Your task to perform on an android device: Show me recent news Image 0: 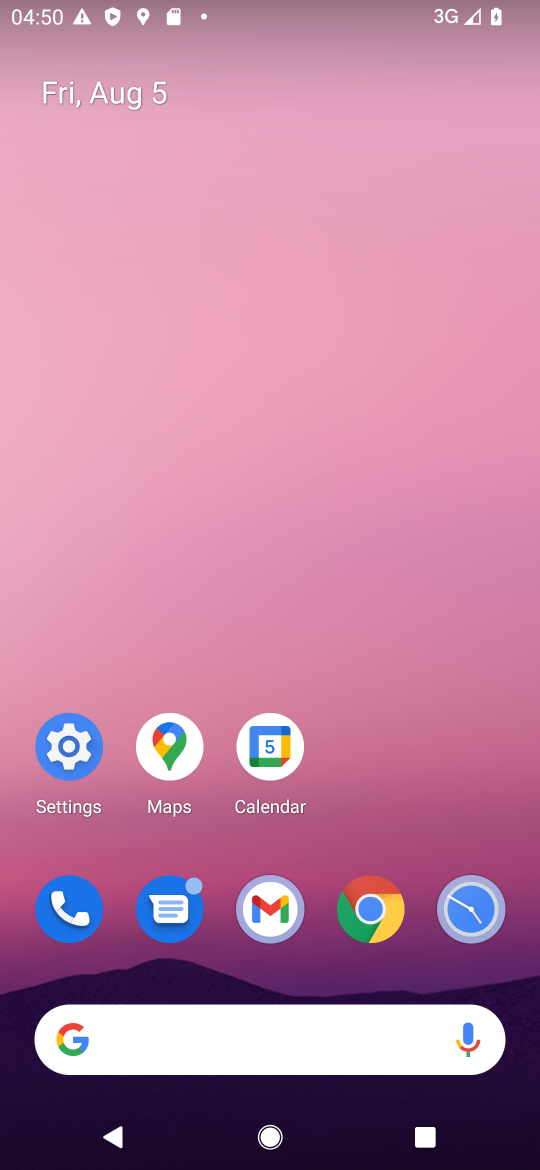
Step 0: click (297, 1028)
Your task to perform on an android device: Show me recent news Image 1: 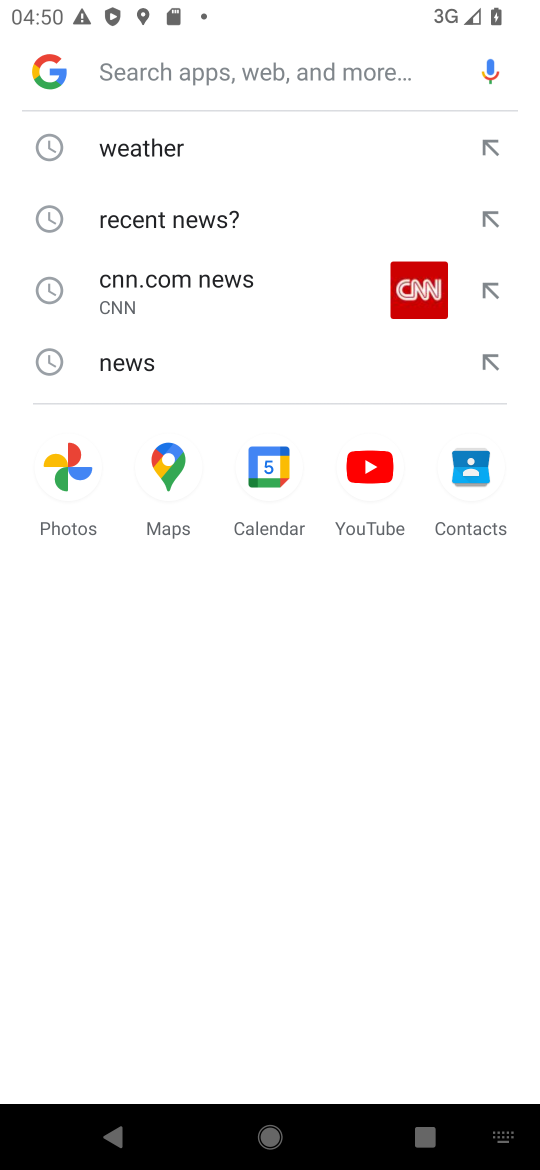
Step 1: click (162, 218)
Your task to perform on an android device: Show me recent news Image 2: 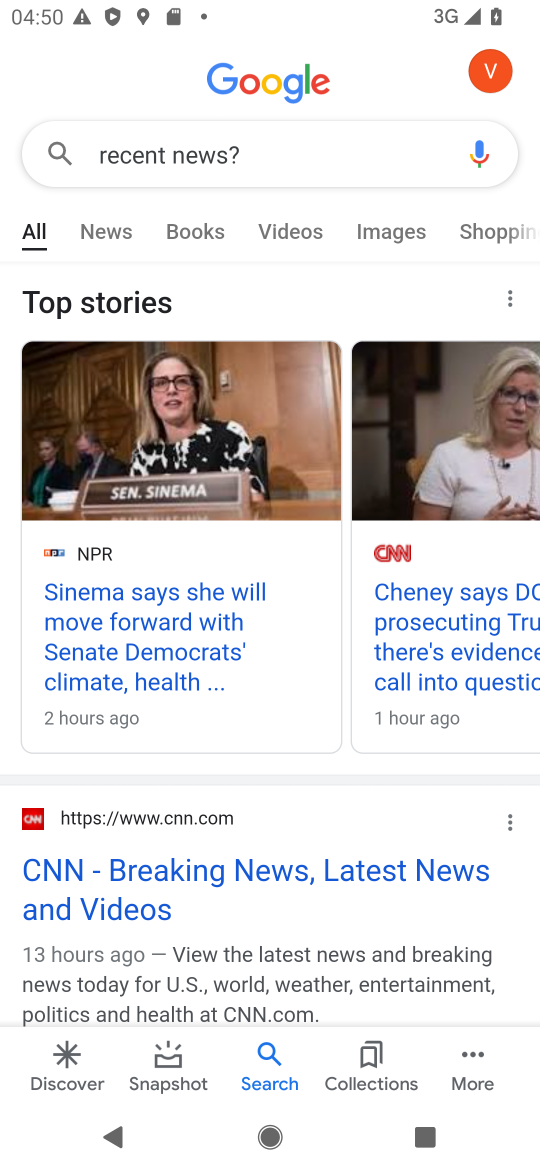
Step 2: click (186, 869)
Your task to perform on an android device: Show me recent news Image 3: 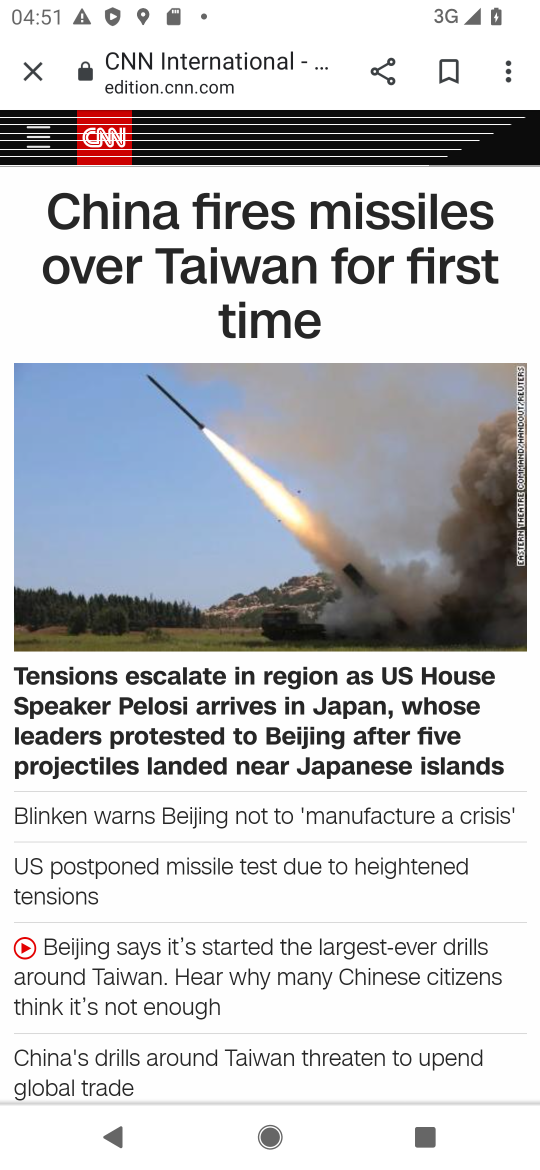
Step 3: task complete